Your task to perform on an android device: Add duracell triple a to the cart on costco.com, then select checkout. Image 0: 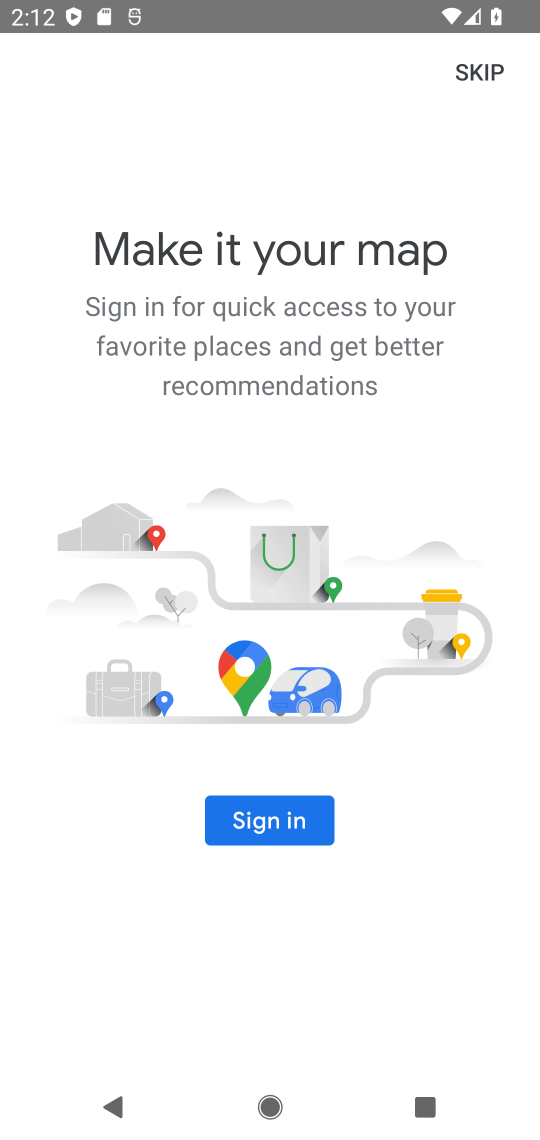
Step 0: press home button
Your task to perform on an android device: Add duracell triple a to the cart on costco.com, then select checkout. Image 1: 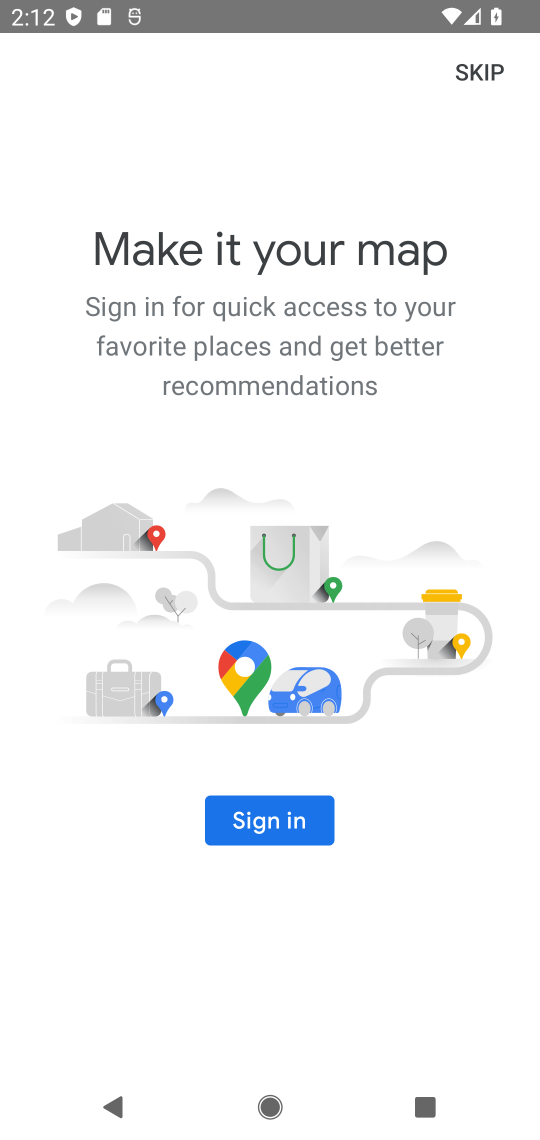
Step 1: press home button
Your task to perform on an android device: Add duracell triple a to the cart on costco.com, then select checkout. Image 2: 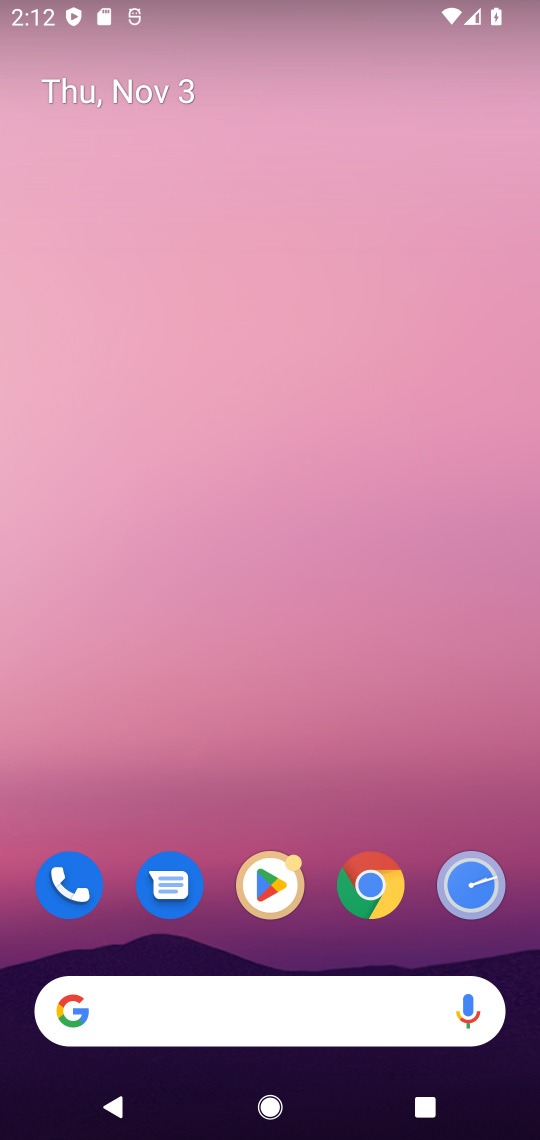
Step 2: drag from (338, 960) to (389, 79)
Your task to perform on an android device: Add duracell triple a to the cart on costco.com, then select checkout. Image 3: 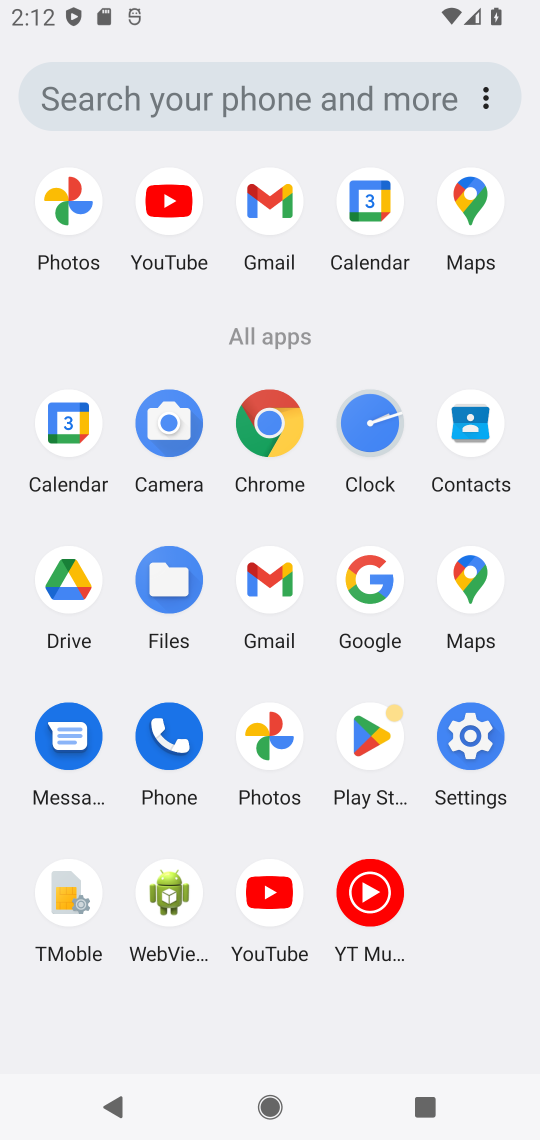
Step 3: click (271, 427)
Your task to perform on an android device: Add duracell triple a to the cart on costco.com, then select checkout. Image 4: 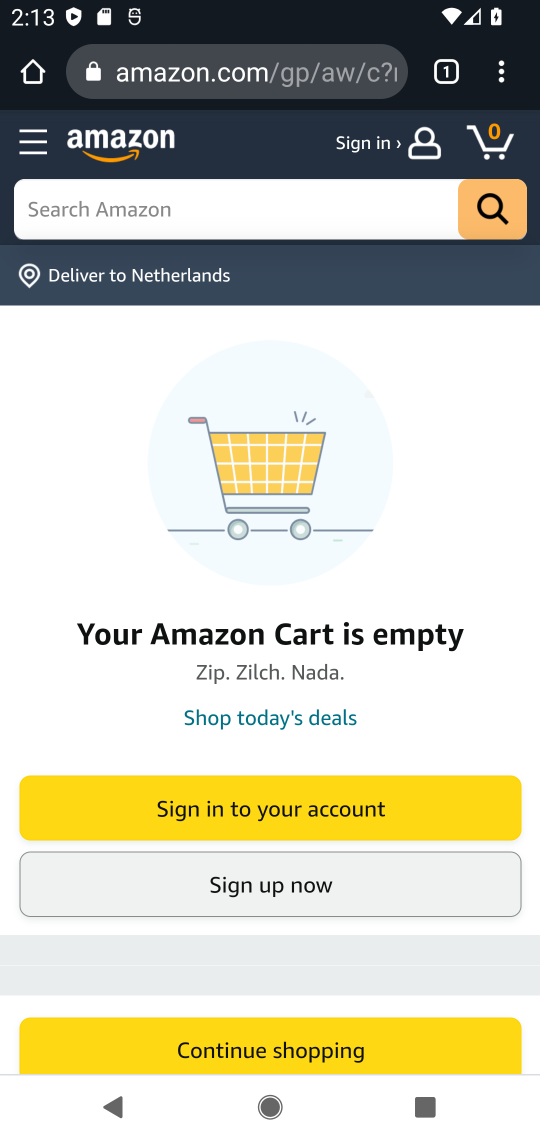
Step 4: click (502, 85)
Your task to perform on an android device: Add duracell triple a to the cart on costco.com, then select checkout. Image 5: 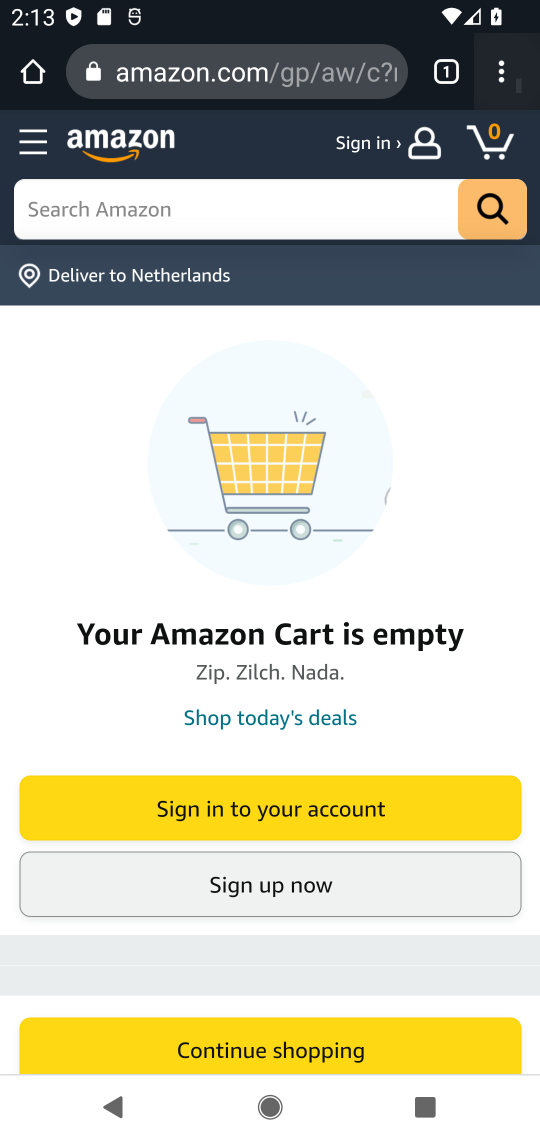
Step 5: click (502, 85)
Your task to perform on an android device: Add duracell triple a to the cart on costco.com, then select checkout. Image 6: 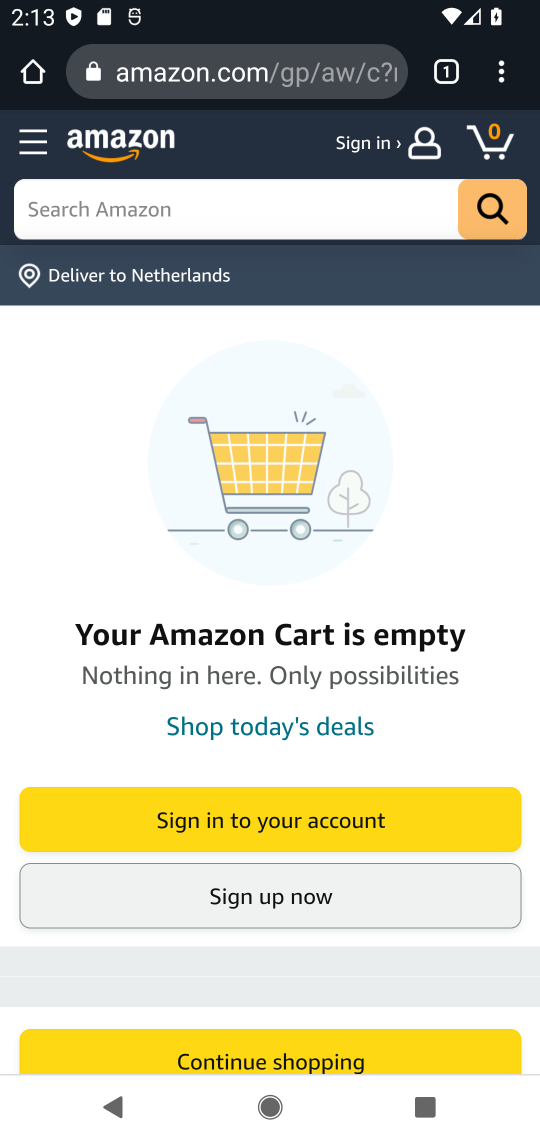
Step 6: drag from (501, 87) to (300, 151)
Your task to perform on an android device: Add duracell triple a to the cart on costco.com, then select checkout. Image 7: 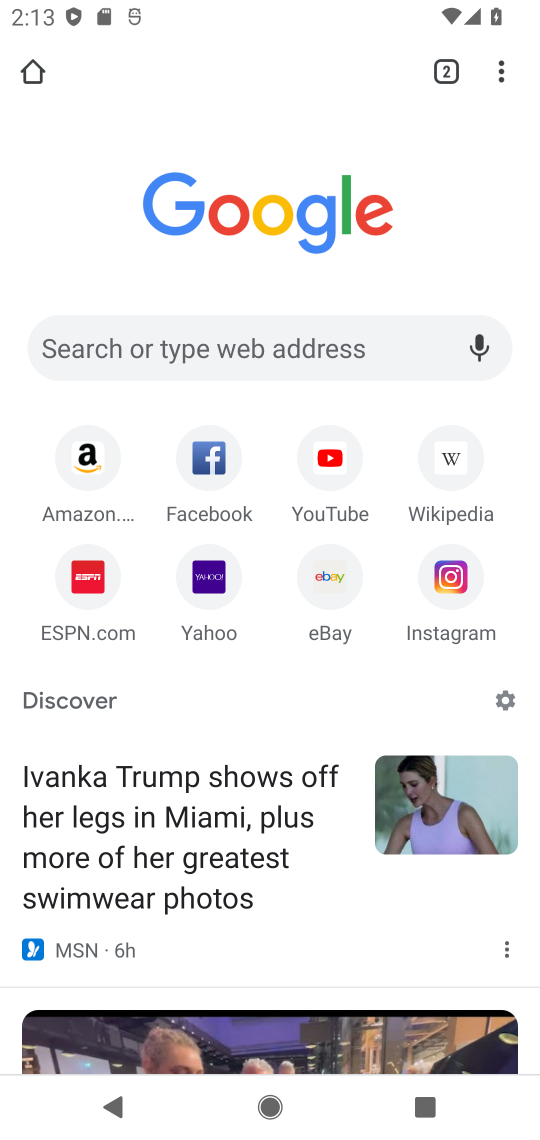
Step 7: click (146, 360)
Your task to perform on an android device: Add duracell triple a to the cart on costco.com, then select checkout. Image 8: 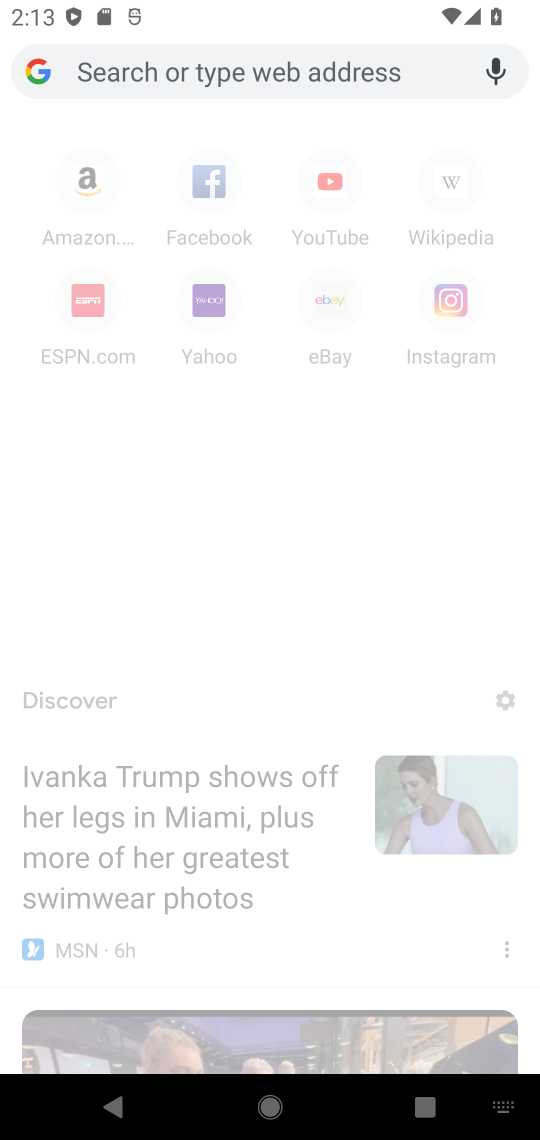
Step 8: type "costco.com"
Your task to perform on an android device: Add duracell triple a to the cart on costco.com, then select checkout. Image 9: 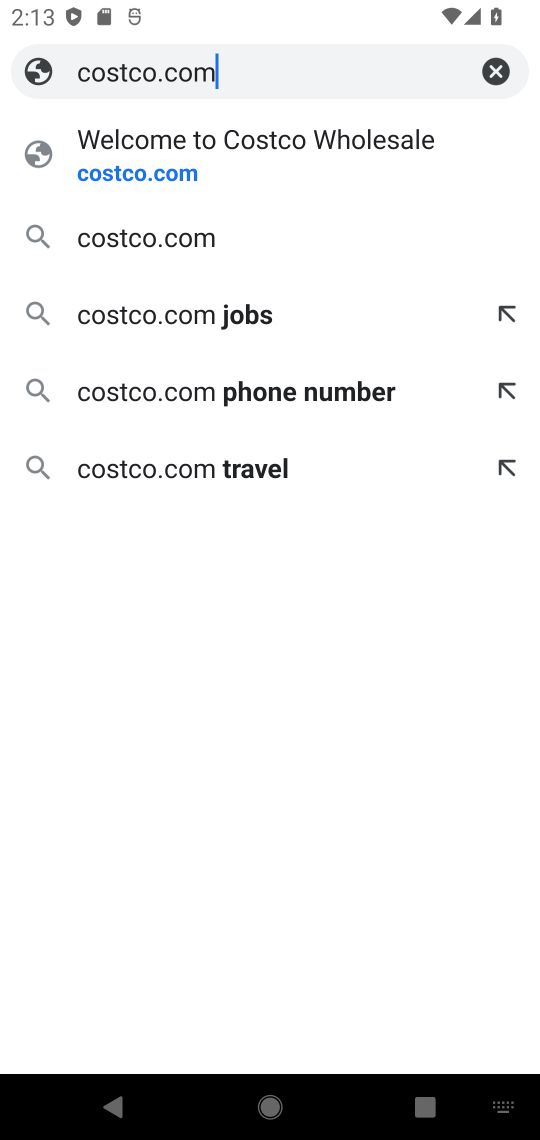
Step 9: click (86, 239)
Your task to perform on an android device: Add duracell triple a to the cart on costco.com, then select checkout. Image 10: 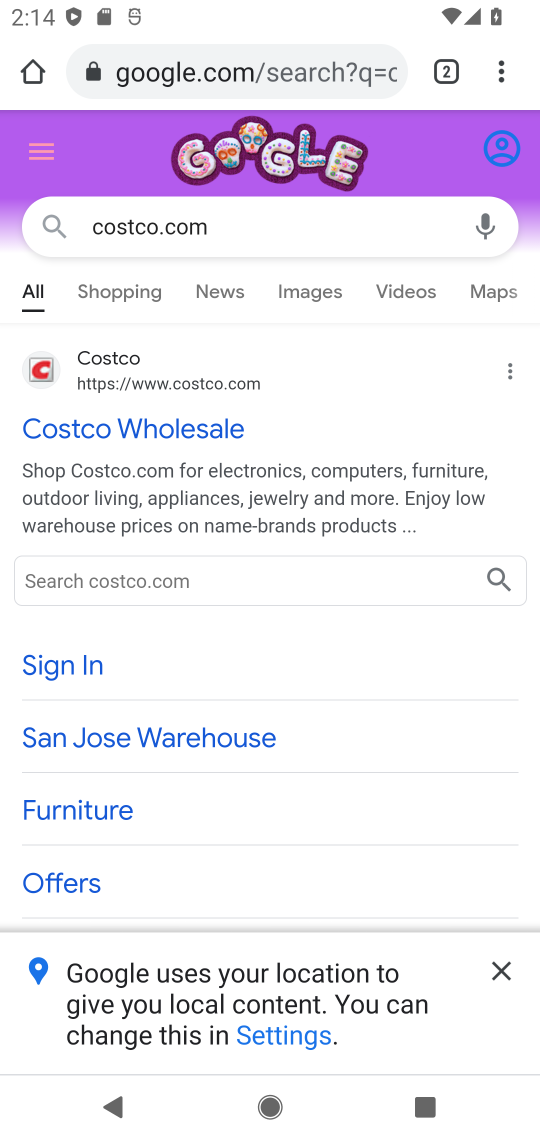
Step 10: click (93, 432)
Your task to perform on an android device: Add duracell triple a to the cart on costco.com, then select checkout. Image 11: 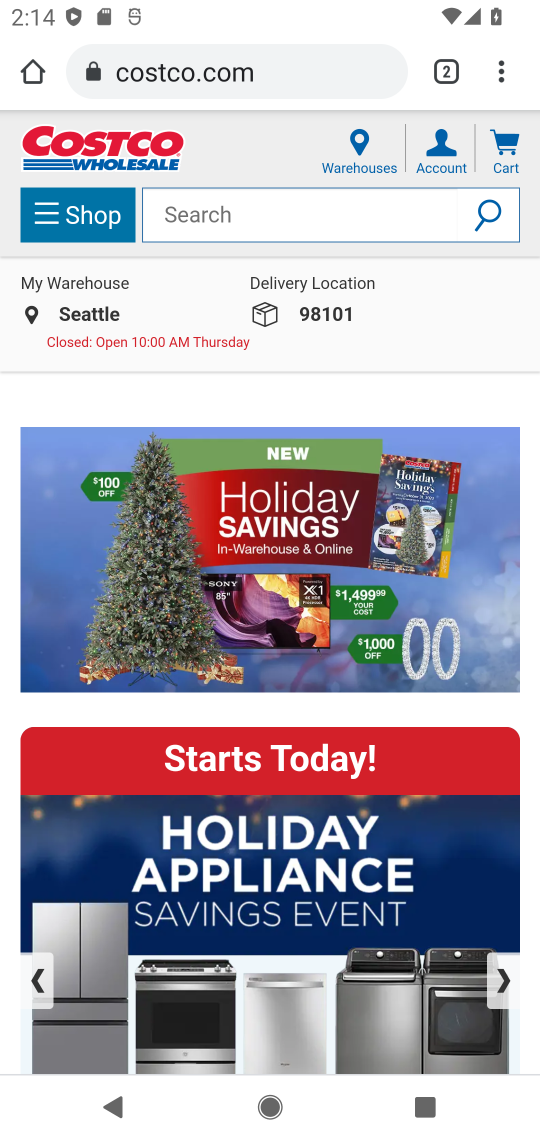
Step 11: click (259, 220)
Your task to perform on an android device: Add duracell triple a to the cart on costco.com, then select checkout. Image 12: 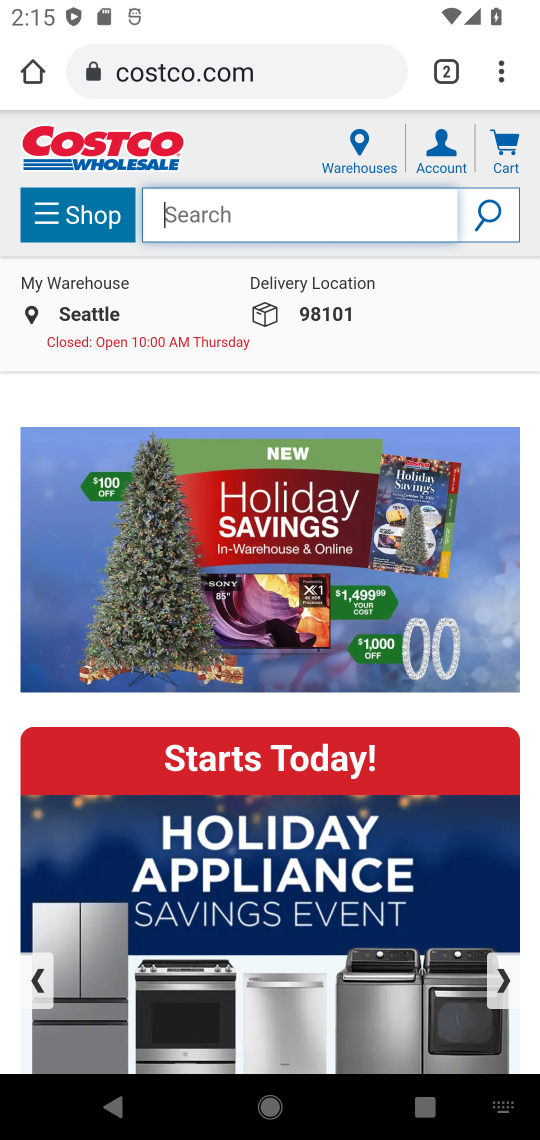
Step 12: type "duracell triple"
Your task to perform on an android device: Add duracell triple a to the cart on costco.com, then select checkout. Image 13: 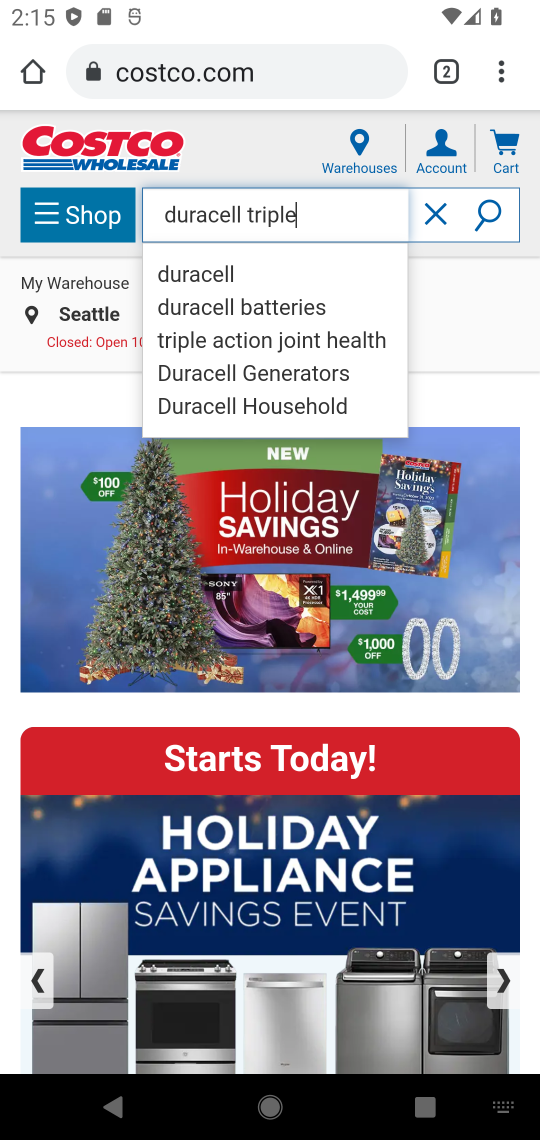
Step 13: click (217, 264)
Your task to perform on an android device: Add duracell triple a to the cart on costco.com, then select checkout. Image 14: 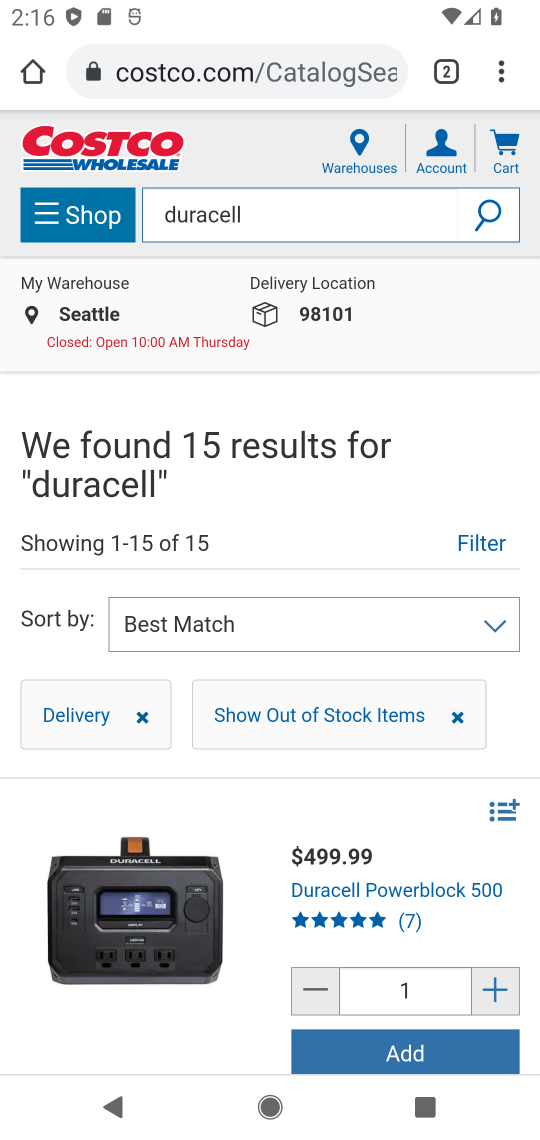
Step 14: task complete